Your task to perform on an android device: Open Maps and search for coffee Image 0: 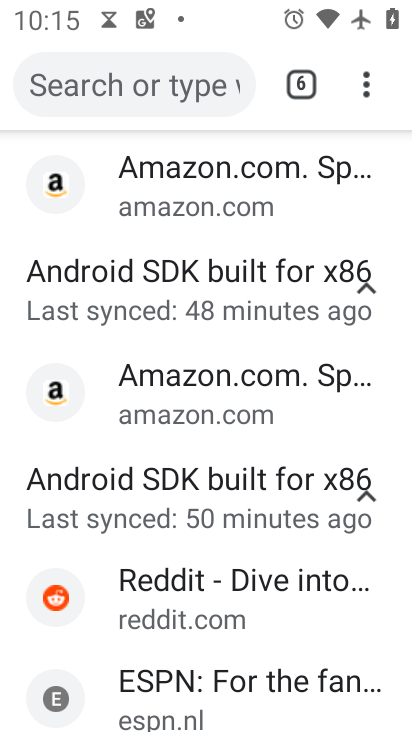
Step 0: press home button
Your task to perform on an android device: Open Maps and search for coffee Image 1: 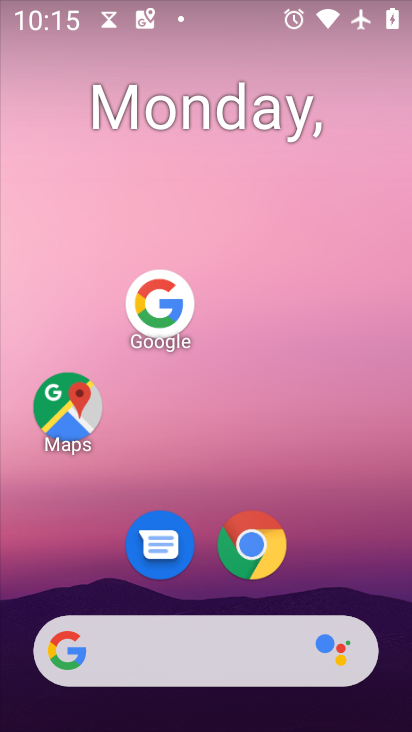
Step 1: click (71, 415)
Your task to perform on an android device: Open Maps and search for coffee Image 2: 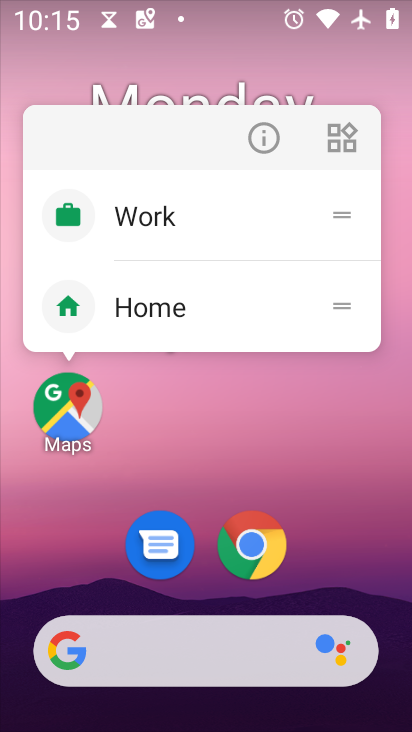
Step 2: click (65, 418)
Your task to perform on an android device: Open Maps and search for coffee Image 3: 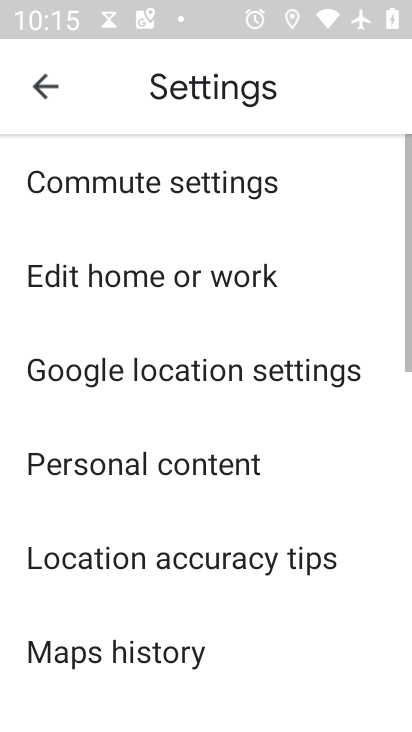
Step 3: click (47, 87)
Your task to perform on an android device: Open Maps and search for coffee Image 4: 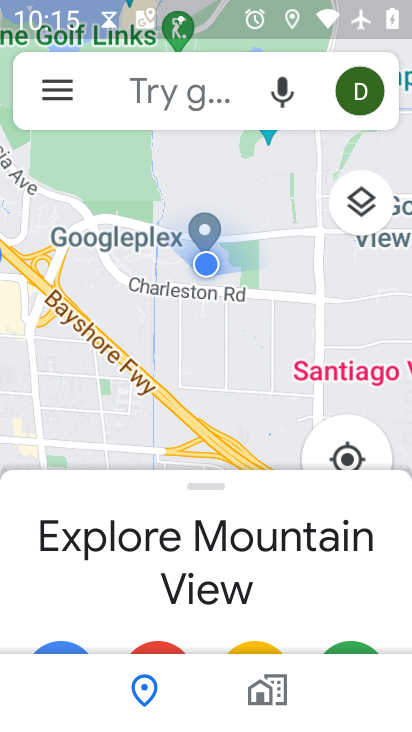
Step 4: click (215, 103)
Your task to perform on an android device: Open Maps and search for coffee Image 5: 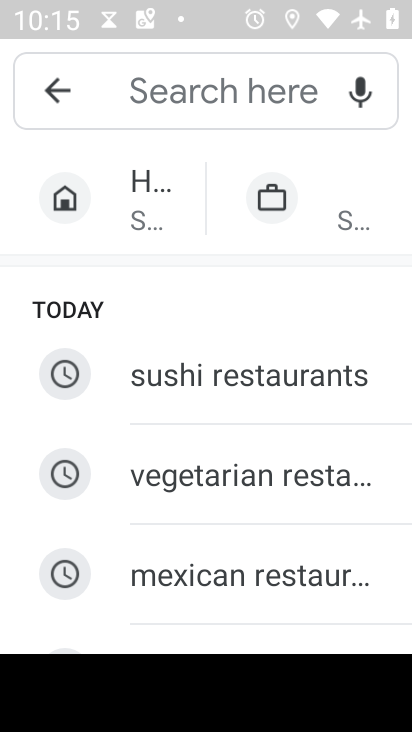
Step 5: drag from (242, 591) to (212, 653)
Your task to perform on an android device: Open Maps and search for coffee Image 6: 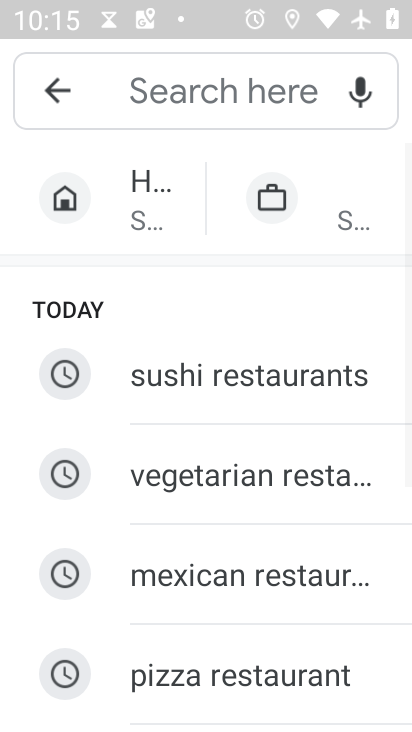
Step 6: click (135, 79)
Your task to perform on an android device: Open Maps and search for coffee Image 7: 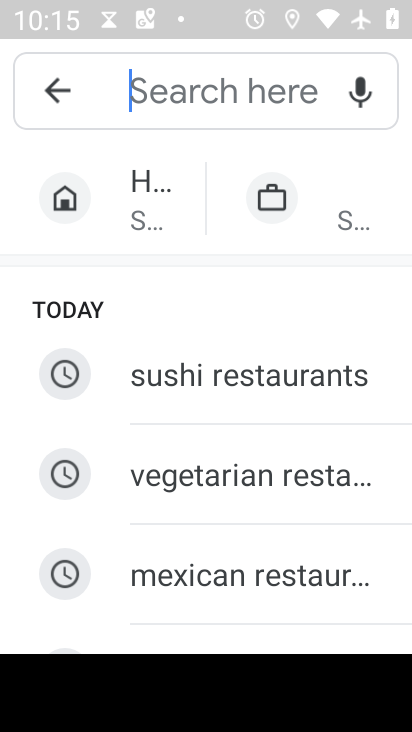
Step 7: type "coffee"
Your task to perform on an android device: Open Maps and search for coffee Image 8: 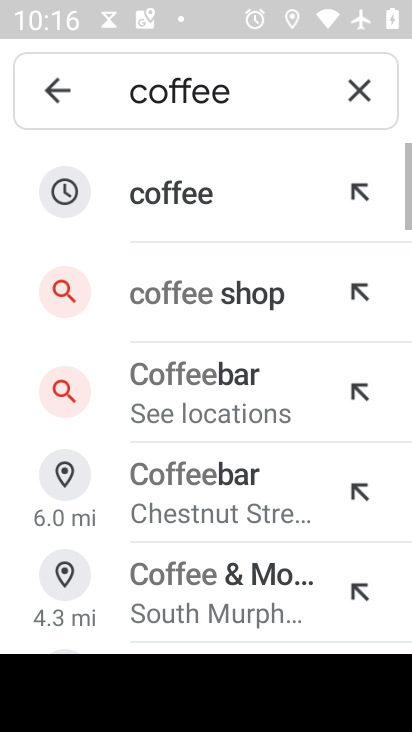
Step 8: click (212, 297)
Your task to perform on an android device: Open Maps and search for coffee Image 9: 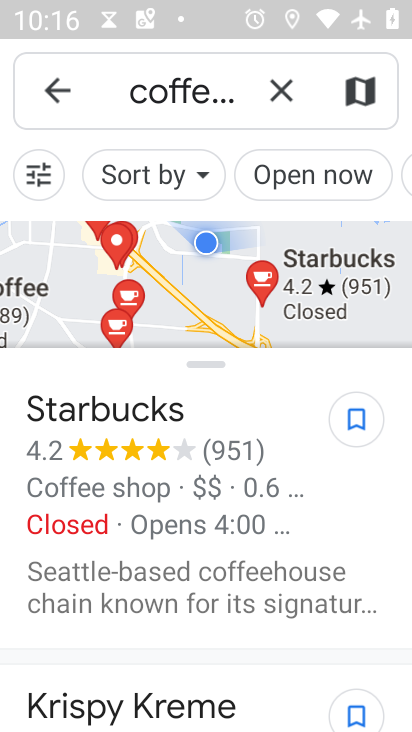
Step 9: task complete